Your task to perform on an android device: turn pop-ups off in chrome Image 0: 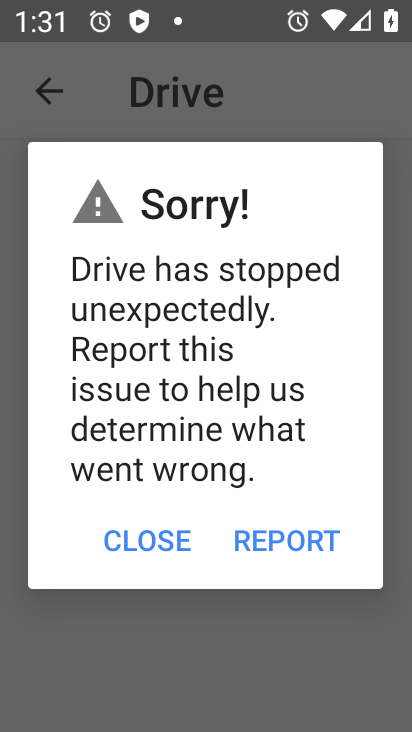
Step 0: press home button
Your task to perform on an android device: turn pop-ups off in chrome Image 1: 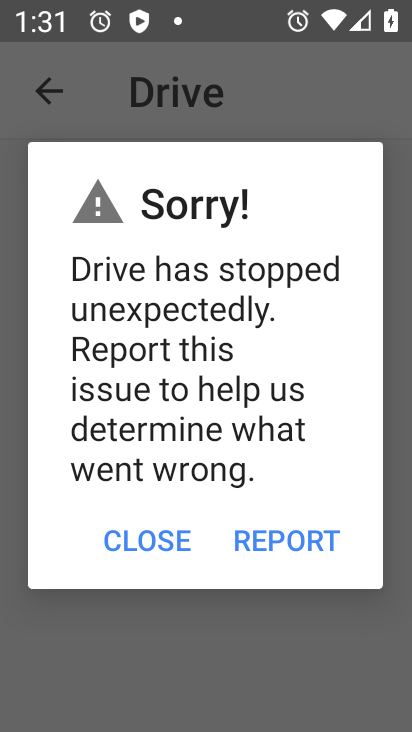
Step 1: press home button
Your task to perform on an android device: turn pop-ups off in chrome Image 2: 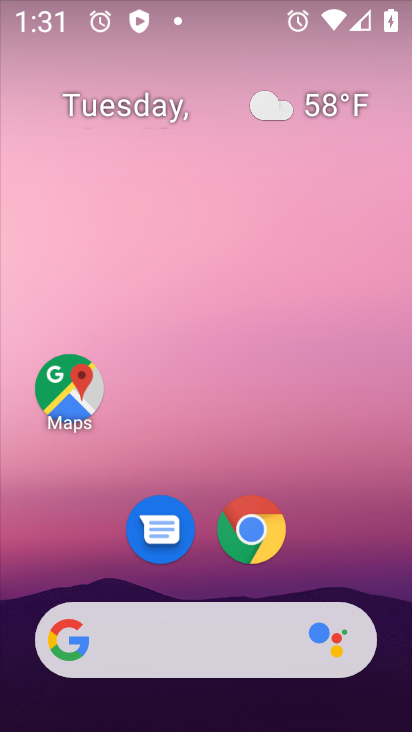
Step 2: drag from (325, 469) to (405, 1)
Your task to perform on an android device: turn pop-ups off in chrome Image 3: 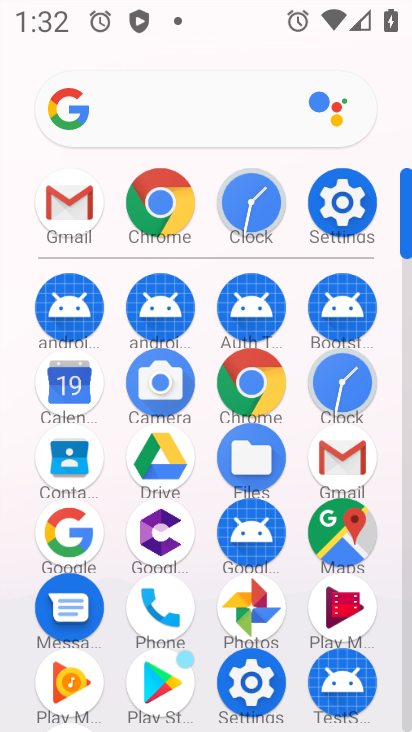
Step 3: click (174, 220)
Your task to perform on an android device: turn pop-ups off in chrome Image 4: 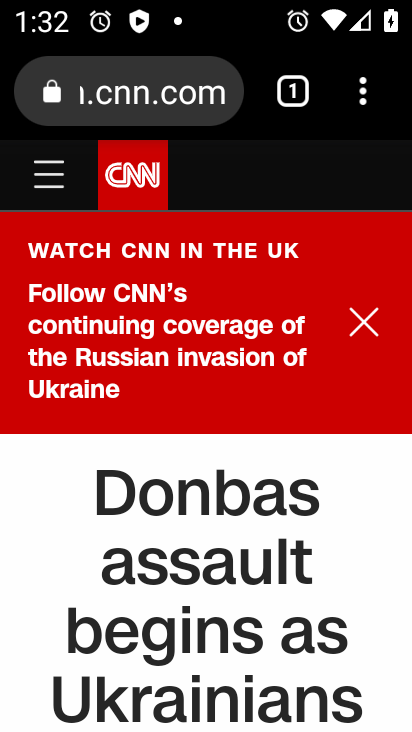
Step 4: click (376, 99)
Your task to perform on an android device: turn pop-ups off in chrome Image 5: 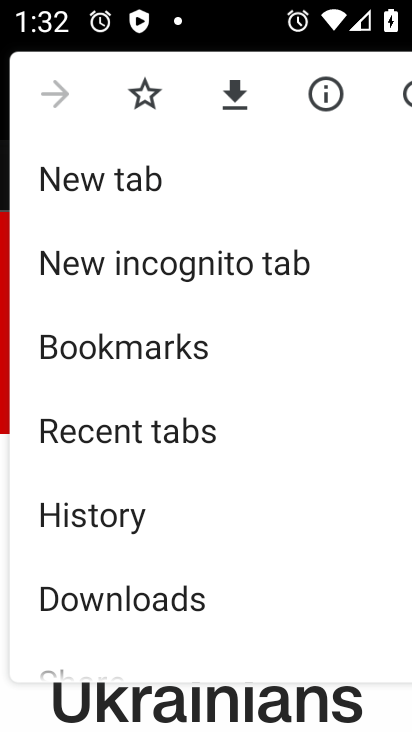
Step 5: drag from (249, 456) to (240, 304)
Your task to perform on an android device: turn pop-ups off in chrome Image 6: 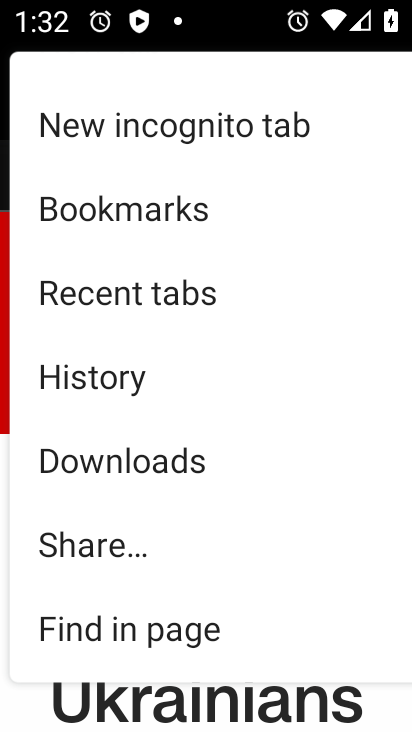
Step 6: drag from (233, 511) to (162, 56)
Your task to perform on an android device: turn pop-ups off in chrome Image 7: 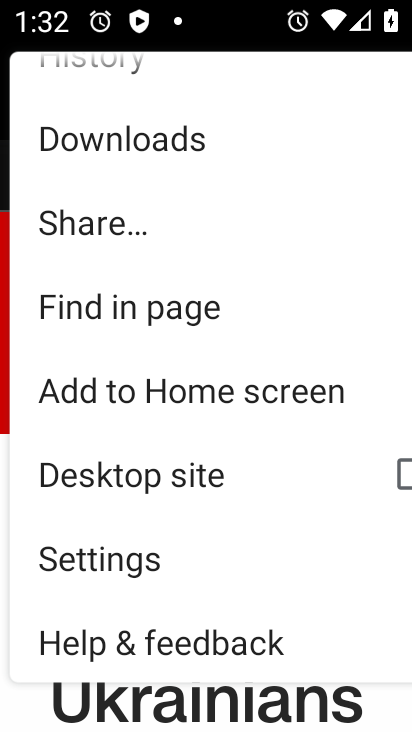
Step 7: click (153, 563)
Your task to perform on an android device: turn pop-ups off in chrome Image 8: 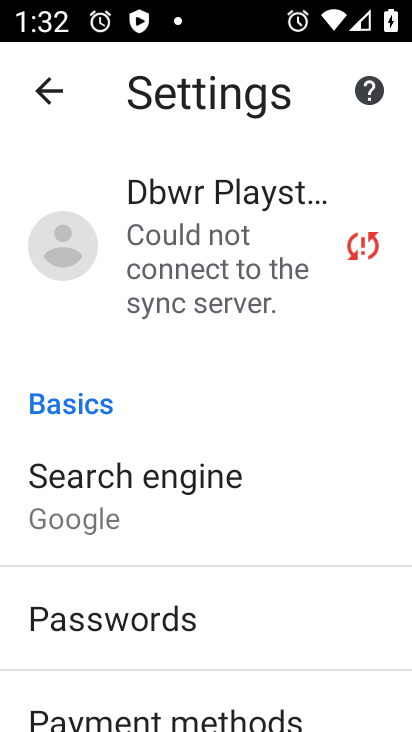
Step 8: drag from (236, 614) to (199, 266)
Your task to perform on an android device: turn pop-ups off in chrome Image 9: 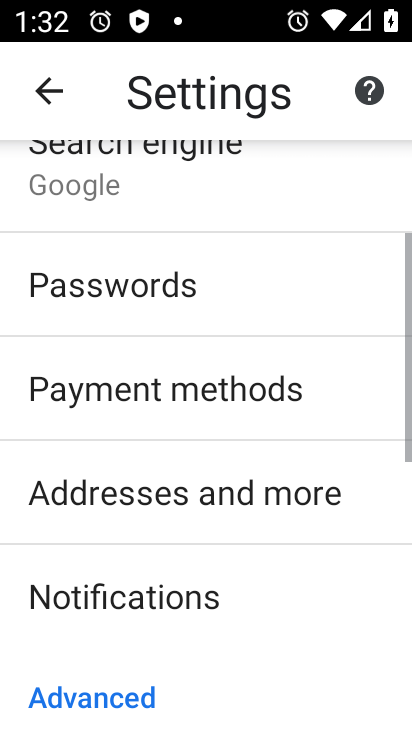
Step 9: drag from (235, 458) to (212, 200)
Your task to perform on an android device: turn pop-ups off in chrome Image 10: 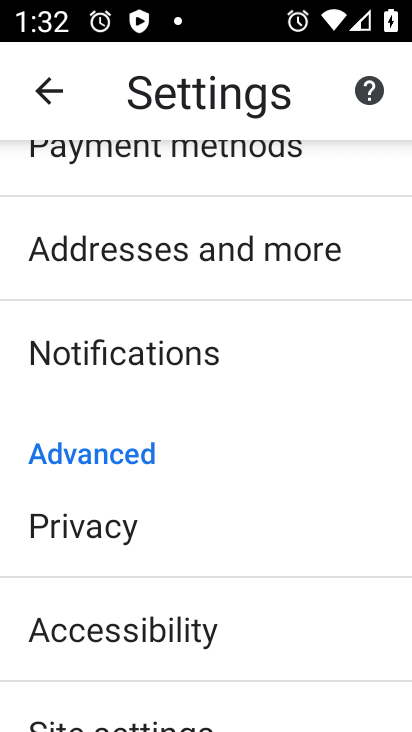
Step 10: drag from (280, 571) to (242, 130)
Your task to perform on an android device: turn pop-ups off in chrome Image 11: 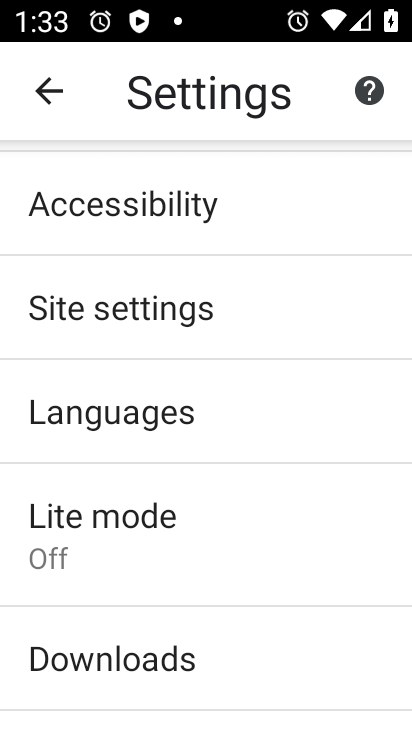
Step 11: click (211, 314)
Your task to perform on an android device: turn pop-ups off in chrome Image 12: 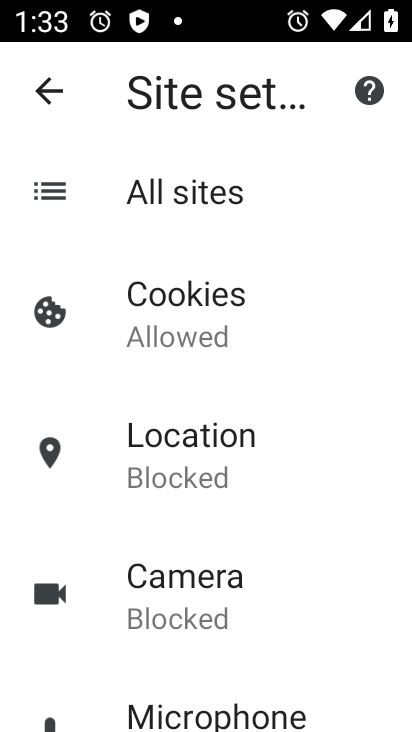
Step 12: drag from (223, 539) to (222, 404)
Your task to perform on an android device: turn pop-ups off in chrome Image 13: 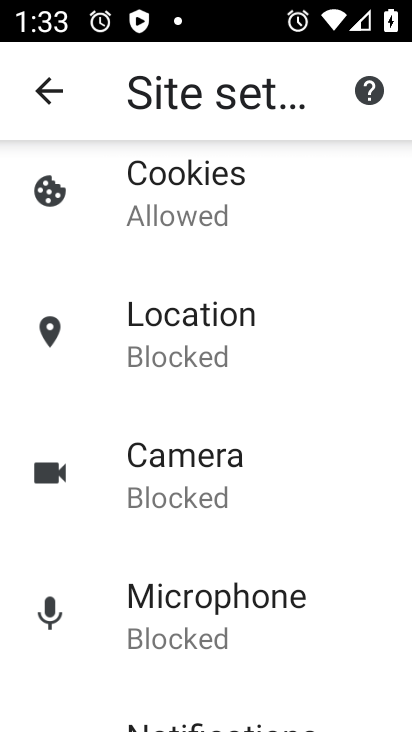
Step 13: drag from (238, 565) to (227, 445)
Your task to perform on an android device: turn pop-ups off in chrome Image 14: 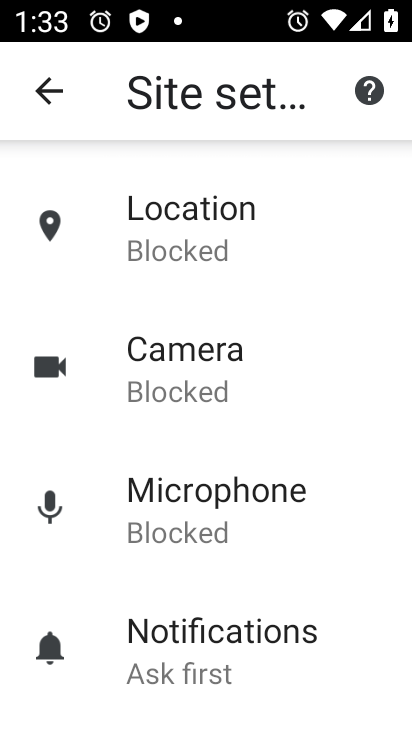
Step 14: drag from (247, 603) to (253, 347)
Your task to perform on an android device: turn pop-ups off in chrome Image 15: 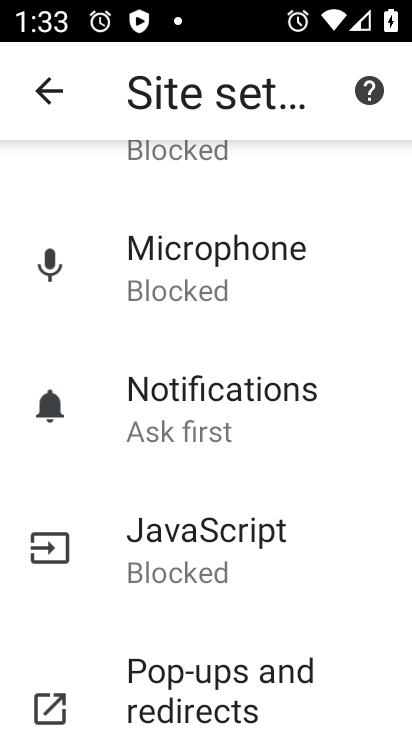
Step 15: drag from (259, 542) to (258, 288)
Your task to perform on an android device: turn pop-ups off in chrome Image 16: 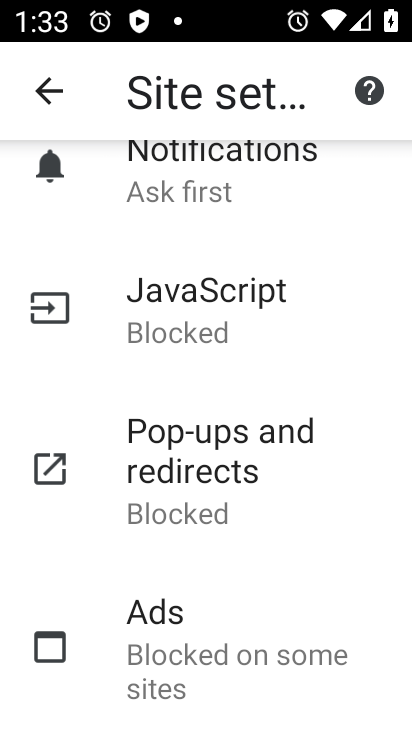
Step 16: click (274, 447)
Your task to perform on an android device: turn pop-ups off in chrome Image 17: 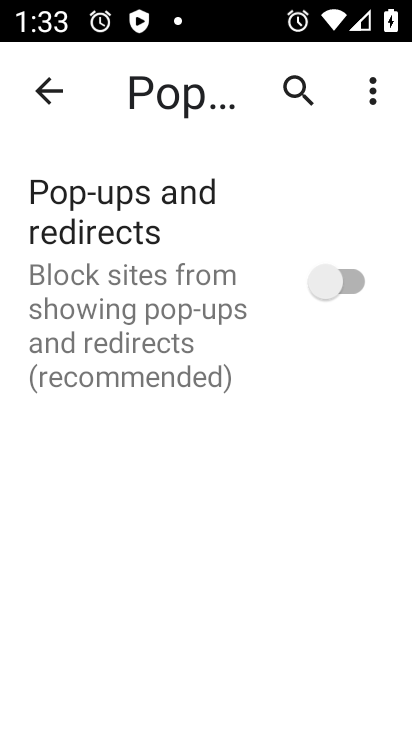
Step 17: click (348, 285)
Your task to perform on an android device: turn pop-ups off in chrome Image 18: 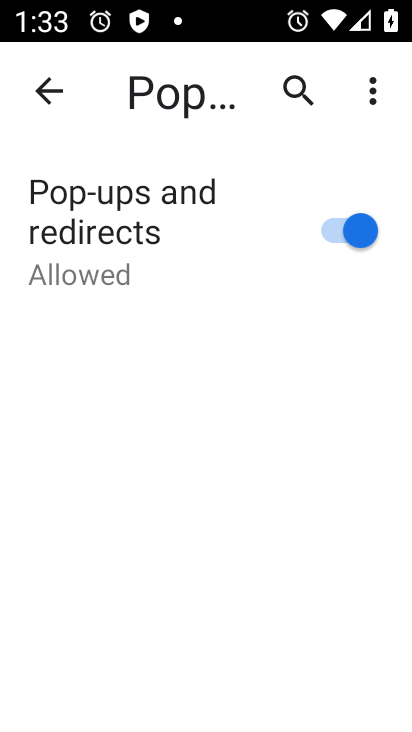
Step 18: task complete